Your task to perform on an android device: Search for vegetarian restaurants on Maps Image 0: 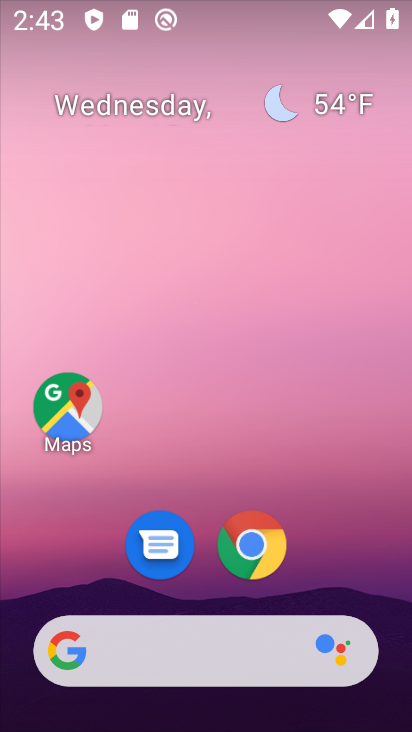
Step 0: drag from (241, 686) to (282, 199)
Your task to perform on an android device: Search for vegetarian restaurants on Maps Image 1: 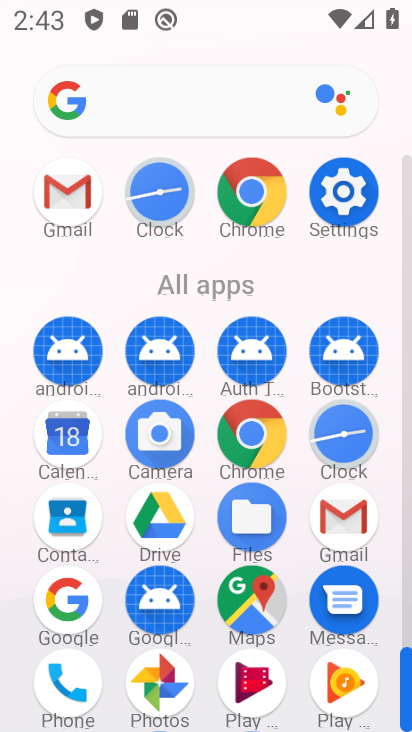
Step 1: click (244, 600)
Your task to perform on an android device: Search for vegetarian restaurants on Maps Image 2: 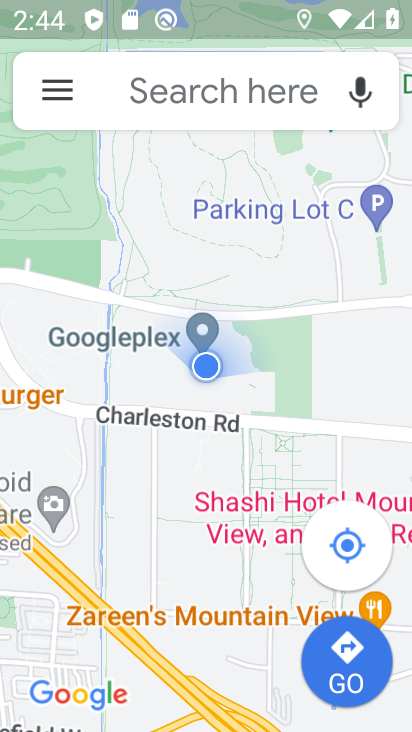
Step 2: click (229, 94)
Your task to perform on an android device: Search for vegetarian restaurants on Maps Image 3: 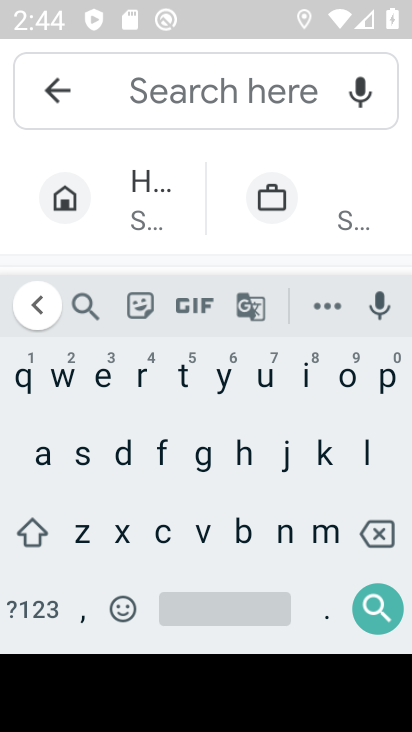
Step 3: click (204, 522)
Your task to perform on an android device: Search for vegetarian restaurants on Maps Image 4: 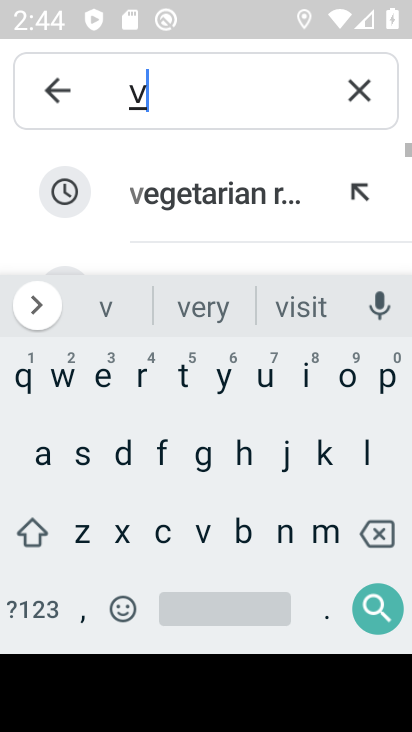
Step 4: click (102, 378)
Your task to perform on an android device: Search for vegetarian restaurants on Maps Image 5: 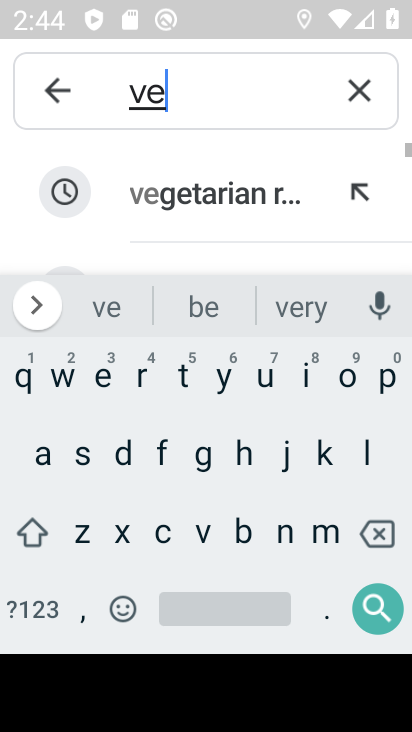
Step 5: click (218, 203)
Your task to perform on an android device: Search for vegetarian restaurants on Maps Image 6: 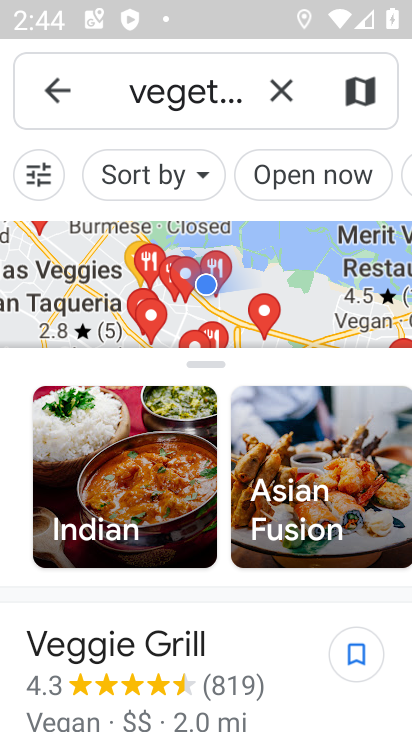
Step 6: click (131, 283)
Your task to perform on an android device: Search for vegetarian restaurants on Maps Image 7: 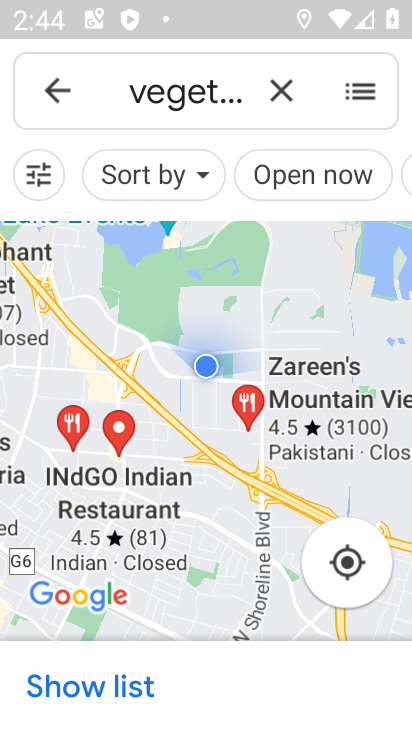
Step 7: task complete